Your task to perform on an android device: turn pop-ups on in chrome Image 0: 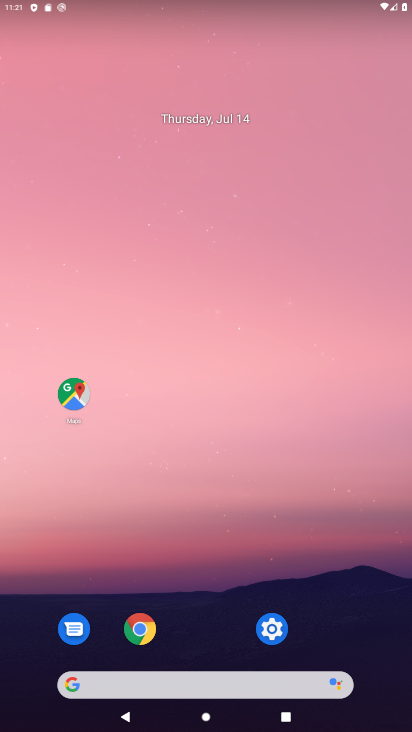
Step 0: click (151, 630)
Your task to perform on an android device: turn pop-ups on in chrome Image 1: 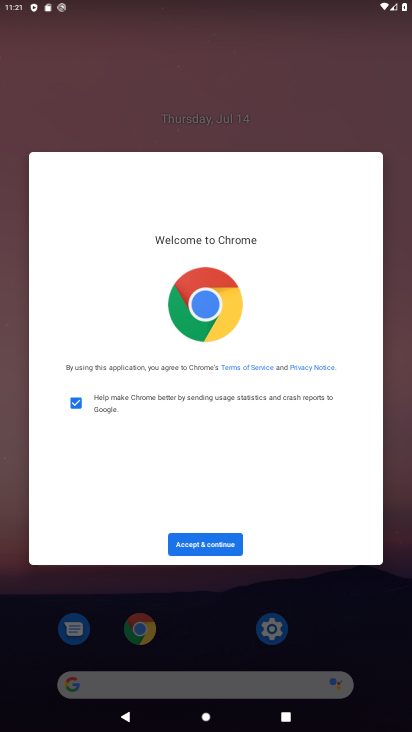
Step 1: click (187, 534)
Your task to perform on an android device: turn pop-ups on in chrome Image 2: 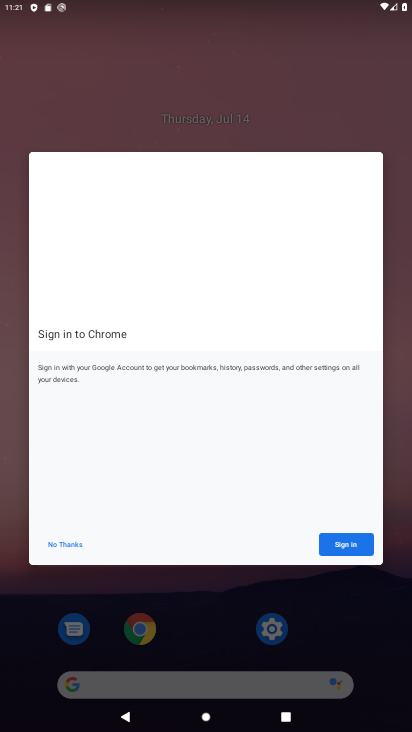
Step 2: click (358, 545)
Your task to perform on an android device: turn pop-ups on in chrome Image 3: 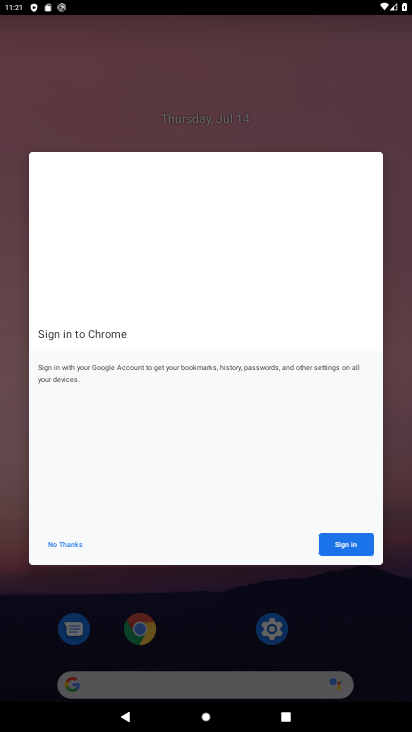
Step 3: click (358, 545)
Your task to perform on an android device: turn pop-ups on in chrome Image 4: 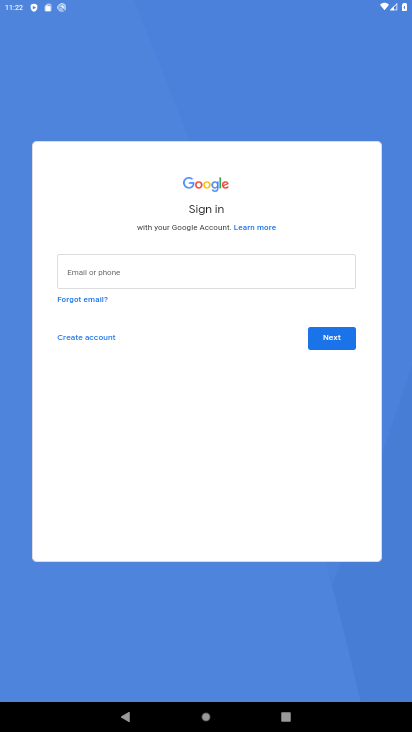
Step 4: press back button
Your task to perform on an android device: turn pop-ups on in chrome Image 5: 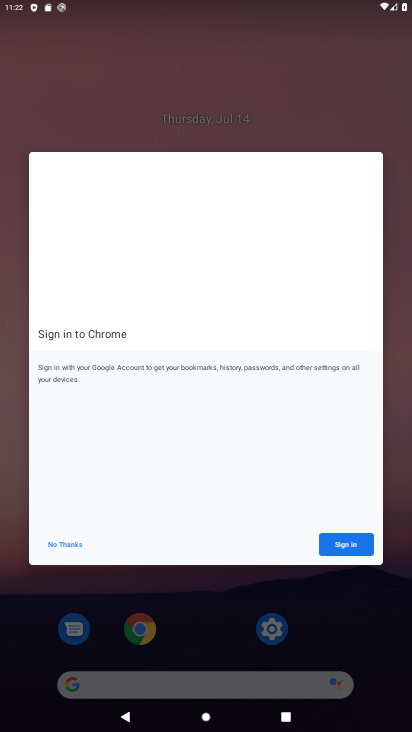
Step 5: press back button
Your task to perform on an android device: turn pop-ups on in chrome Image 6: 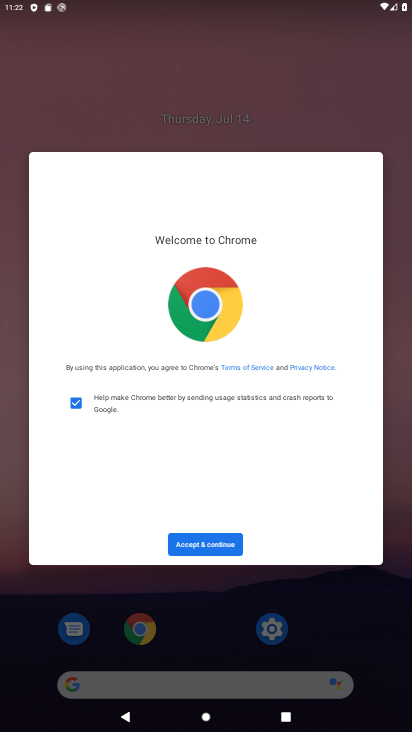
Step 6: click (196, 551)
Your task to perform on an android device: turn pop-ups on in chrome Image 7: 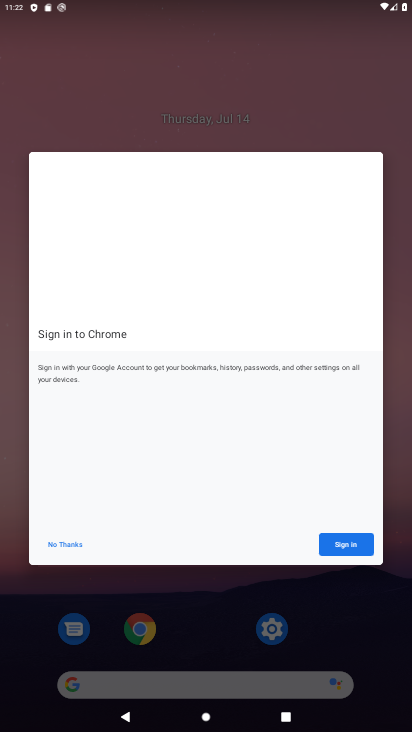
Step 7: click (57, 544)
Your task to perform on an android device: turn pop-ups on in chrome Image 8: 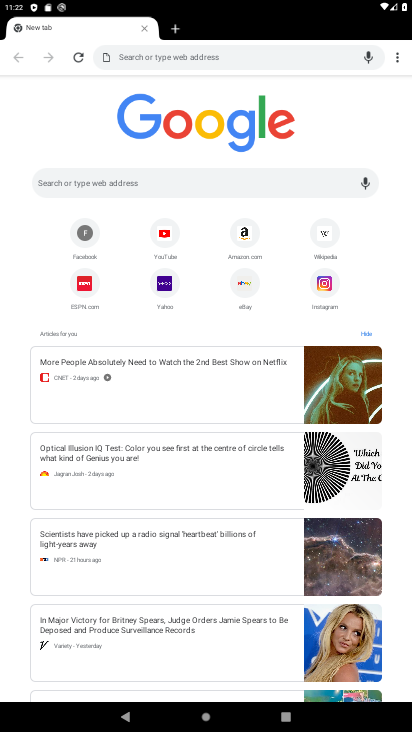
Step 8: click (393, 55)
Your task to perform on an android device: turn pop-ups on in chrome Image 9: 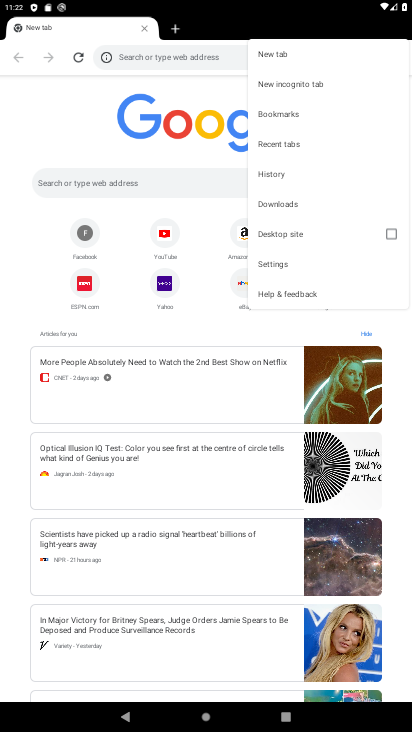
Step 9: click (282, 265)
Your task to perform on an android device: turn pop-ups on in chrome Image 10: 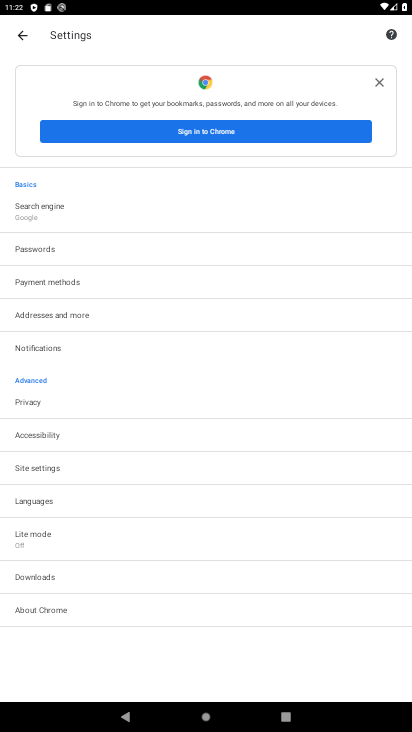
Step 10: click (60, 468)
Your task to perform on an android device: turn pop-ups on in chrome Image 11: 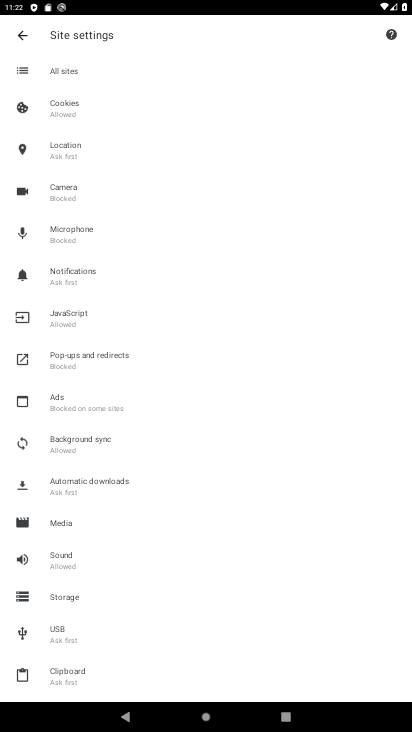
Step 11: click (120, 358)
Your task to perform on an android device: turn pop-ups on in chrome Image 12: 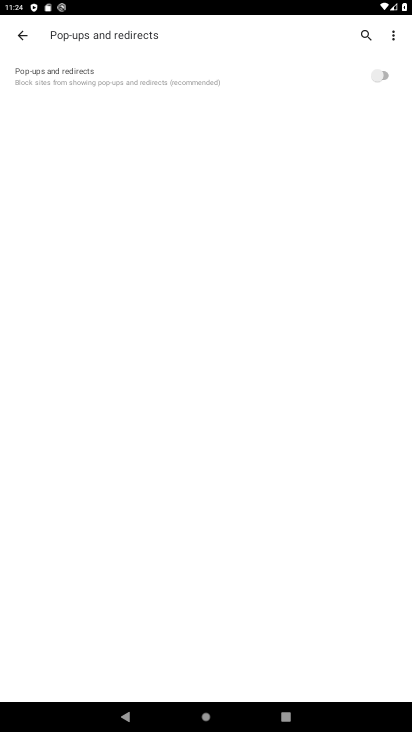
Step 12: click (390, 77)
Your task to perform on an android device: turn pop-ups on in chrome Image 13: 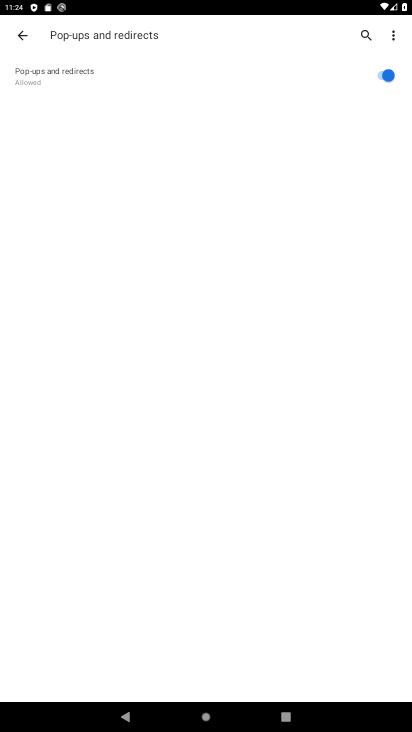
Step 13: task complete